Your task to perform on an android device: What is the recent news? Image 0: 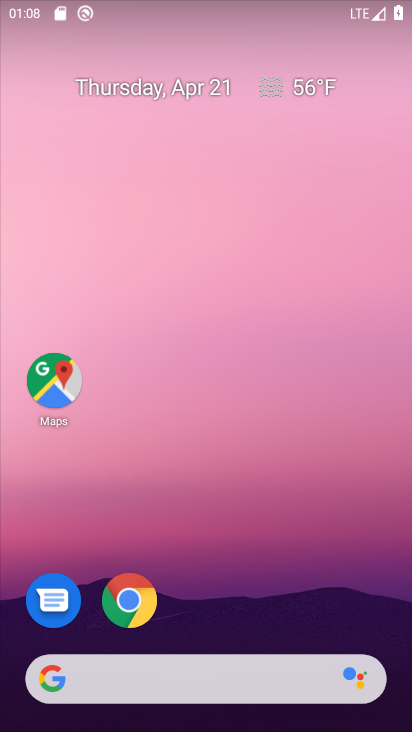
Step 0: click (57, 676)
Your task to perform on an android device: What is the recent news? Image 1: 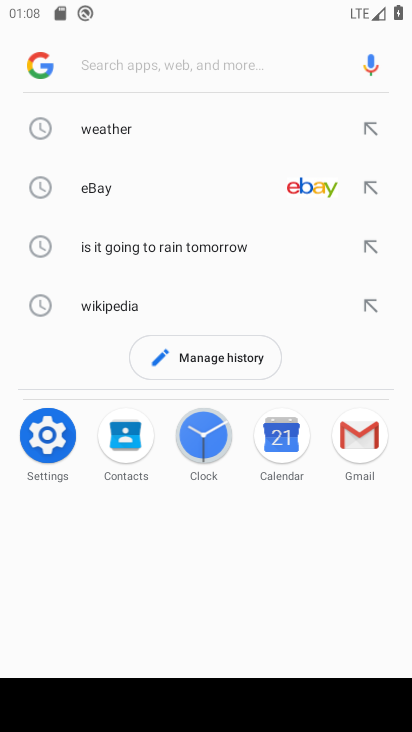
Step 1: click (38, 62)
Your task to perform on an android device: What is the recent news? Image 2: 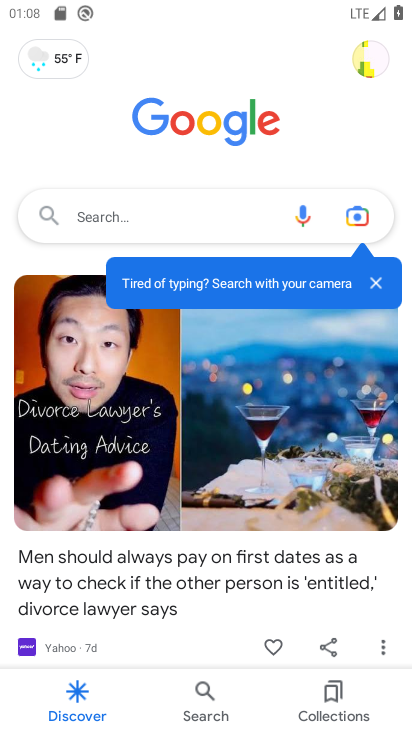
Step 2: click (131, 209)
Your task to perform on an android device: What is the recent news? Image 3: 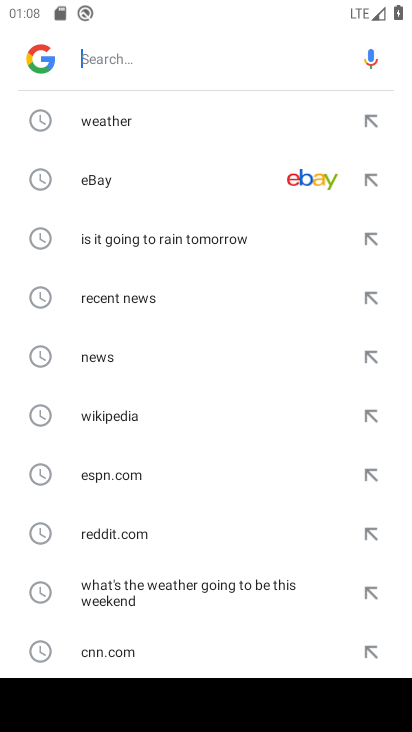
Step 3: click (39, 51)
Your task to perform on an android device: What is the recent news? Image 4: 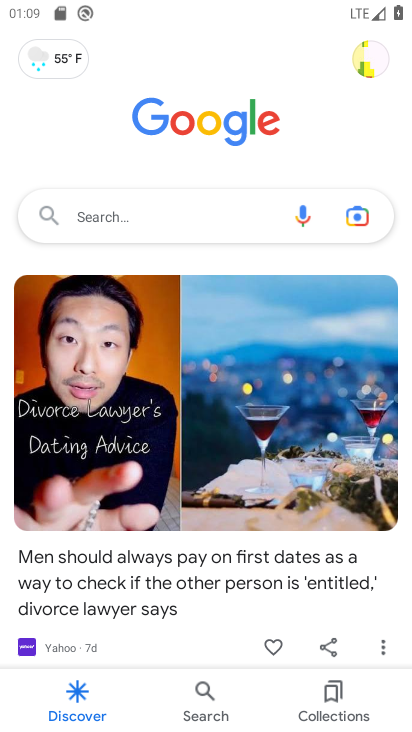
Step 4: task complete